Your task to perform on an android device: turn pop-ups off in chrome Image 0: 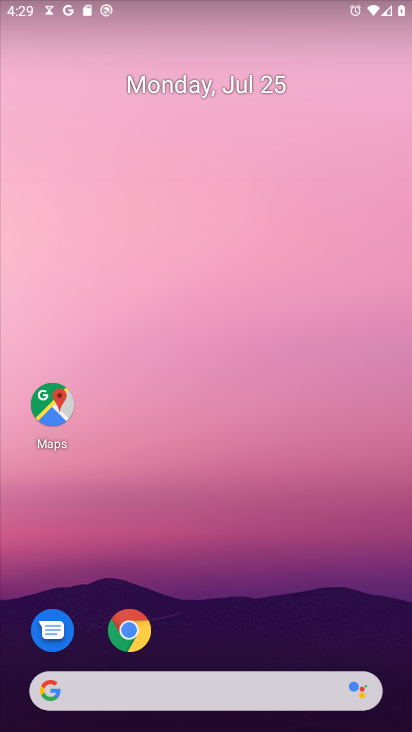
Step 0: click (126, 629)
Your task to perform on an android device: turn pop-ups off in chrome Image 1: 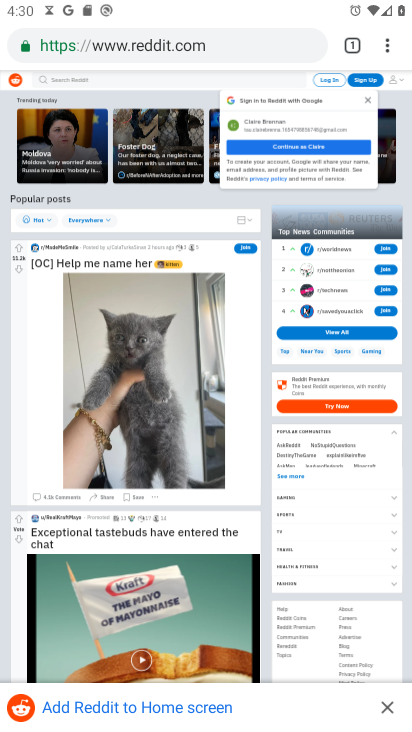
Step 1: click (388, 45)
Your task to perform on an android device: turn pop-ups off in chrome Image 2: 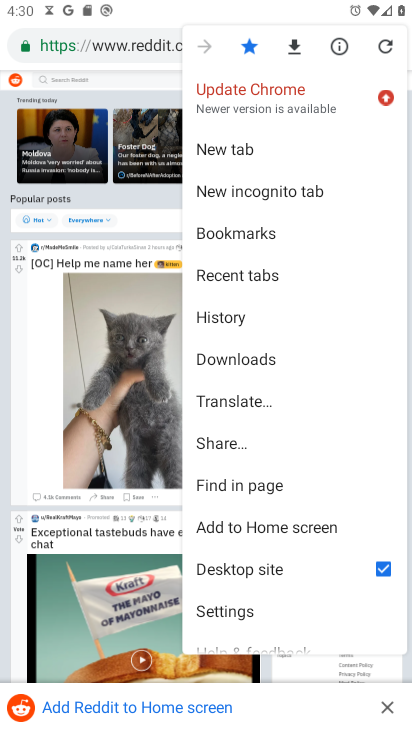
Step 2: click (230, 610)
Your task to perform on an android device: turn pop-ups off in chrome Image 3: 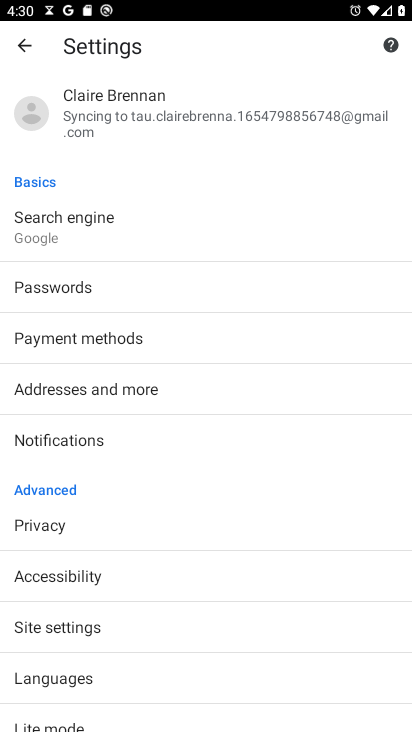
Step 3: click (67, 627)
Your task to perform on an android device: turn pop-ups off in chrome Image 4: 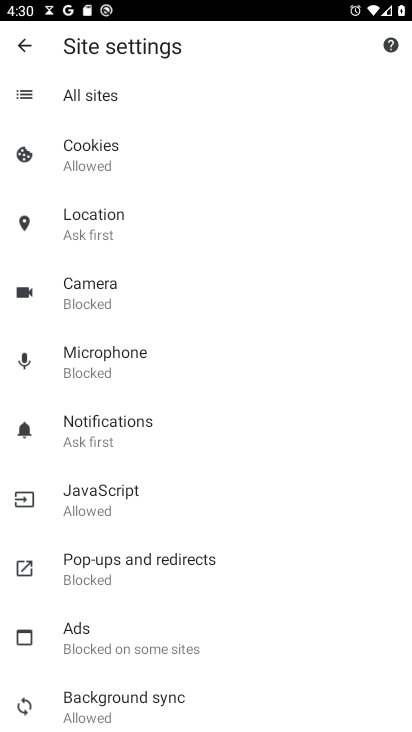
Step 4: click (92, 565)
Your task to perform on an android device: turn pop-ups off in chrome Image 5: 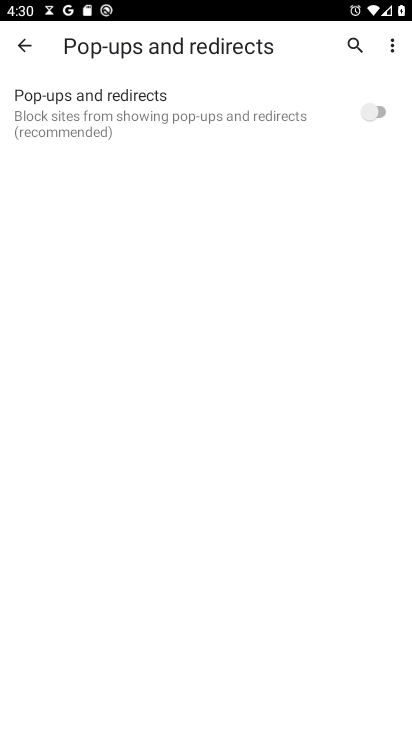
Step 5: task complete